Your task to perform on an android device: add a contact Image 0: 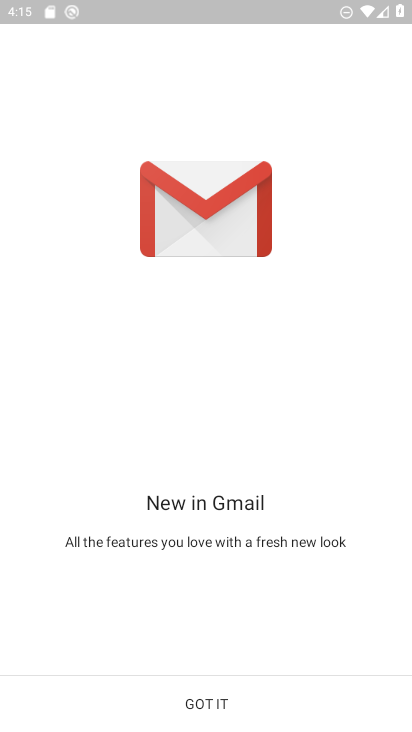
Step 0: click (206, 694)
Your task to perform on an android device: add a contact Image 1: 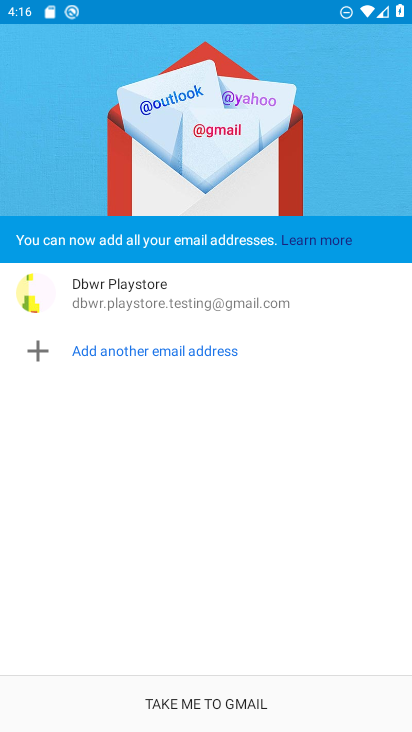
Step 1: press home button
Your task to perform on an android device: add a contact Image 2: 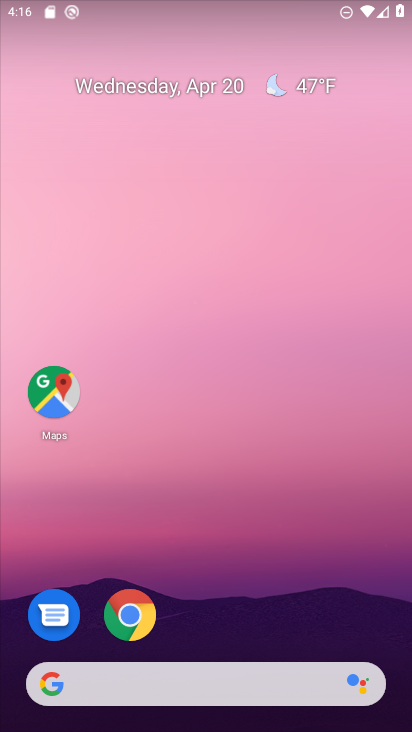
Step 2: drag from (223, 478) to (296, 82)
Your task to perform on an android device: add a contact Image 3: 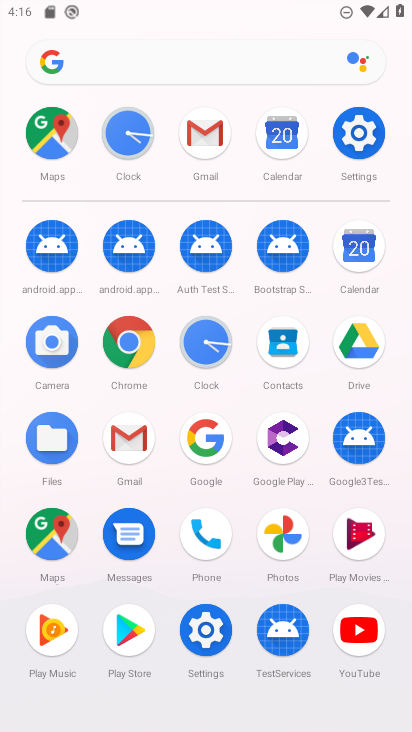
Step 3: click (289, 348)
Your task to perform on an android device: add a contact Image 4: 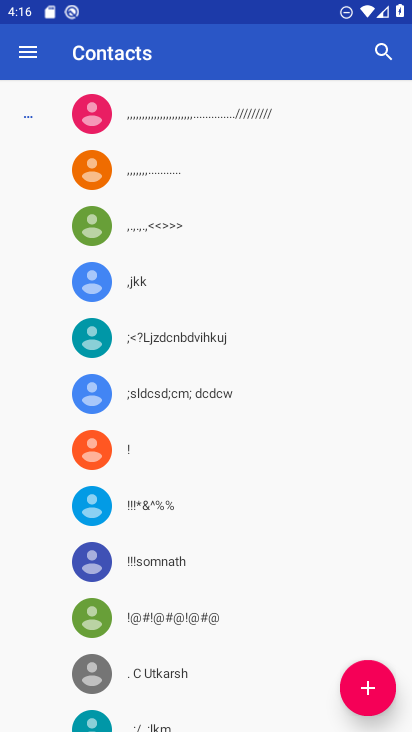
Step 4: click (372, 691)
Your task to perform on an android device: add a contact Image 5: 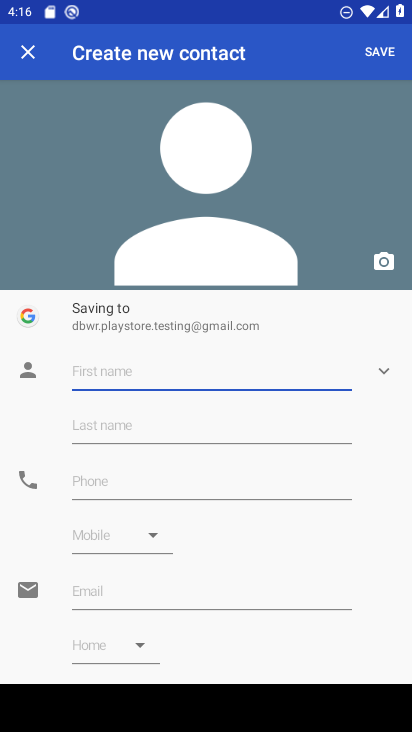
Step 5: type "ertyuytrert"
Your task to perform on an android device: add a contact Image 6: 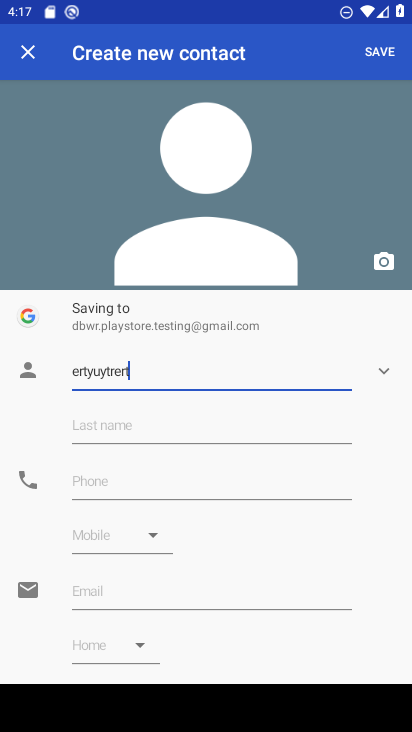
Step 6: click (174, 482)
Your task to perform on an android device: add a contact Image 7: 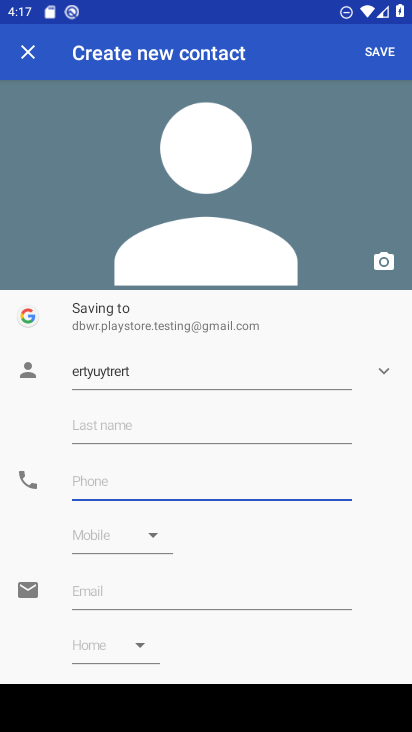
Step 7: type "456787654567"
Your task to perform on an android device: add a contact Image 8: 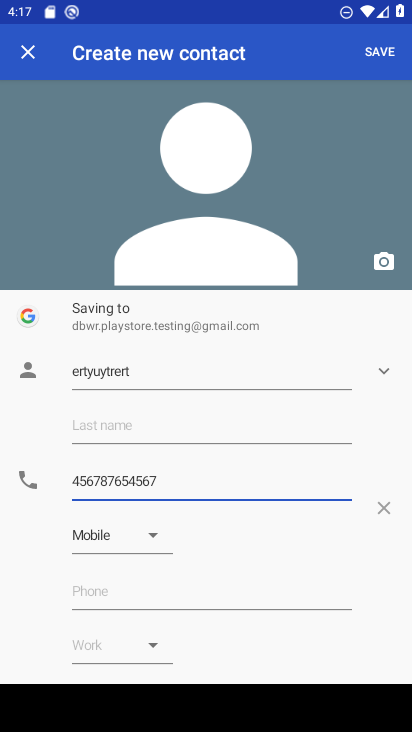
Step 8: click (387, 51)
Your task to perform on an android device: add a contact Image 9: 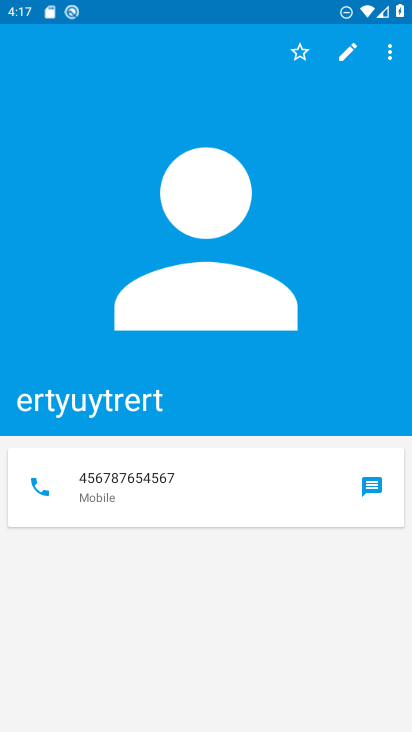
Step 9: task complete